Your task to perform on an android device: open wifi settings Image 0: 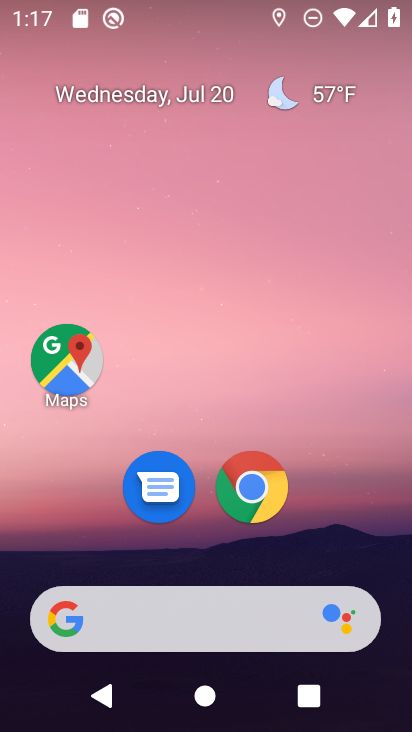
Step 0: drag from (377, 561) to (392, 134)
Your task to perform on an android device: open wifi settings Image 1: 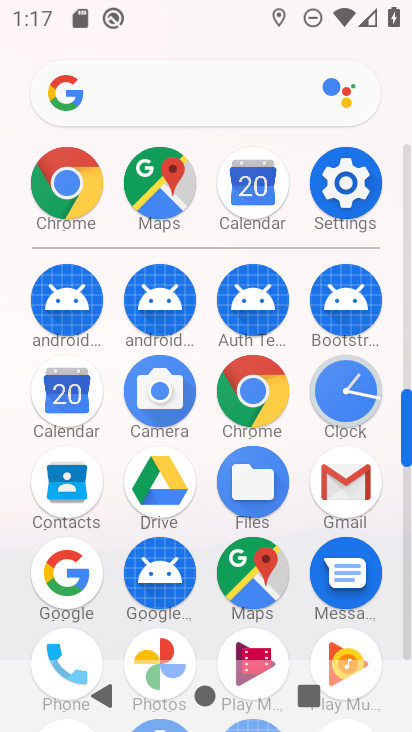
Step 1: click (354, 209)
Your task to perform on an android device: open wifi settings Image 2: 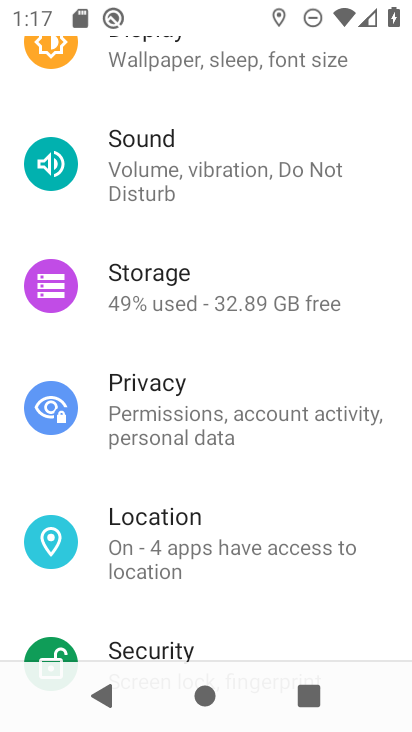
Step 2: drag from (366, 245) to (368, 323)
Your task to perform on an android device: open wifi settings Image 3: 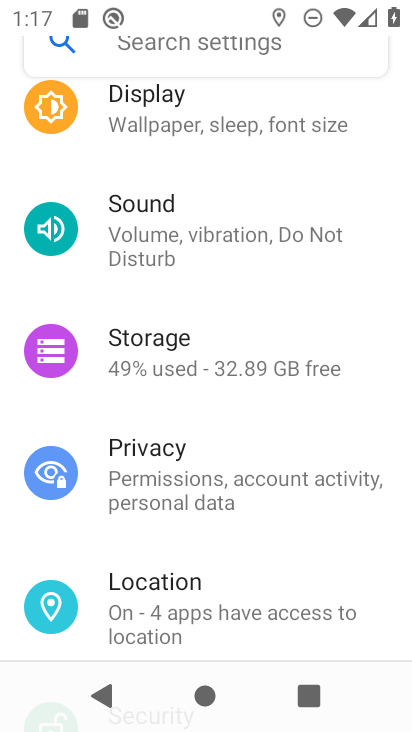
Step 3: drag from (379, 221) to (379, 290)
Your task to perform on an android device: open wifi settings Image 4: 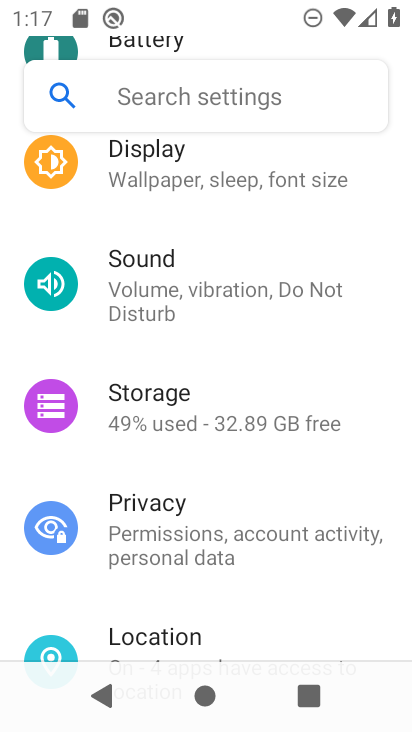
Step 4: drag from (380, 230) to (380, 314)
Your task to perform on an android device: open wifi settings Image 5: 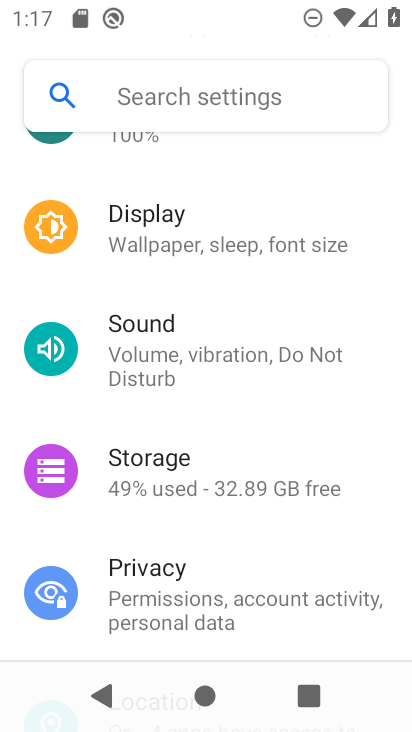
Step 5: drag from (386, 251) to (386, 304)
Your task to perform on an android device: open wifi settings Image 6: 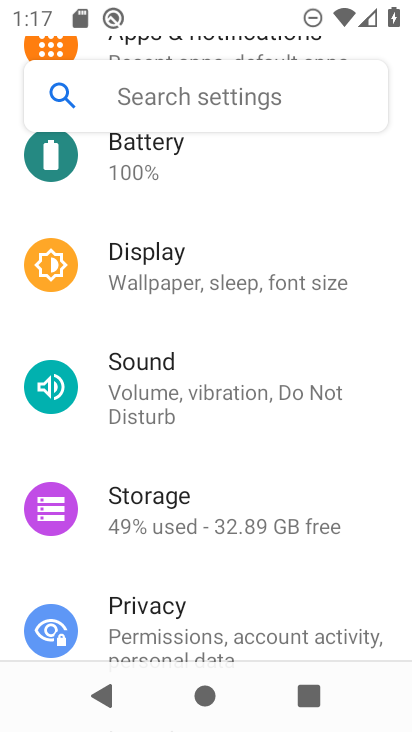
Step 6: drag from (386, 247) to (386, 316)
Your task to perform on an android device: open wifi settings Image 7: 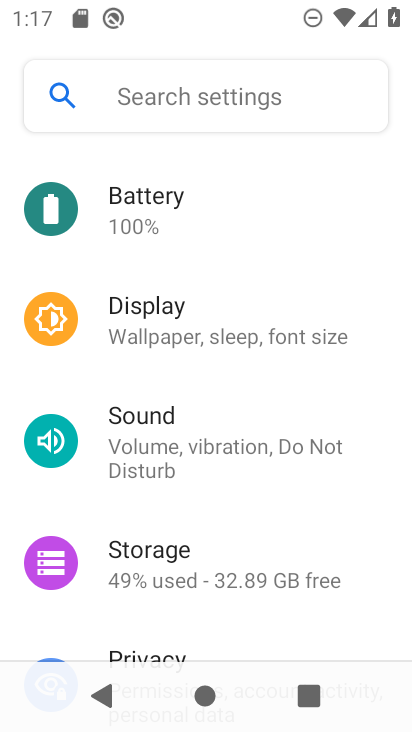
Step 7: drag from (370, 221) to (371, 307)
Your task to perform on an android device: open wifi settings Image 8: 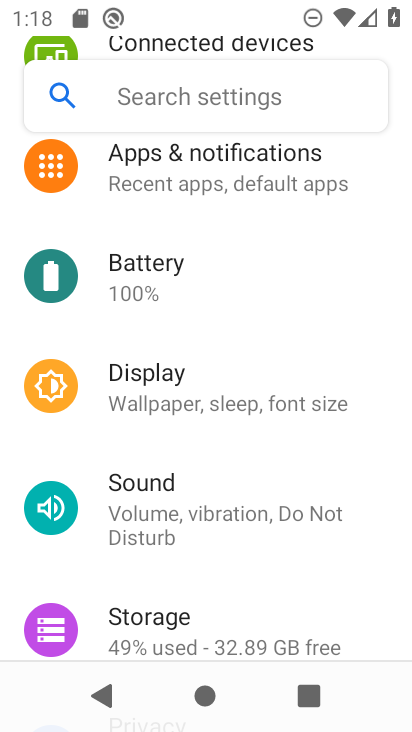
Step 8: drag from (373, 263) to (383, 369)
Your task to perform on an android device: open wifi settings Image 9: 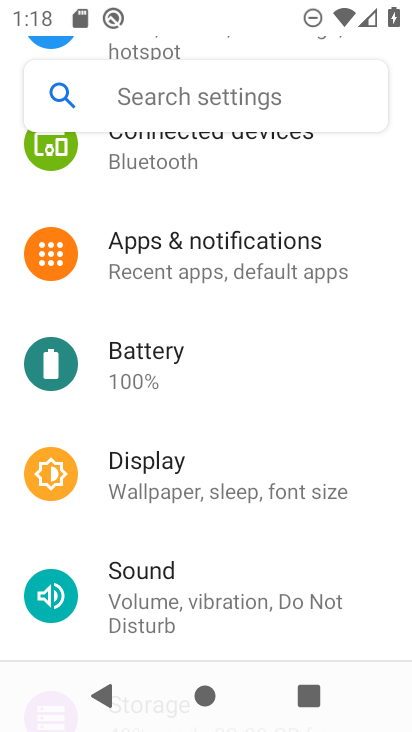
Step 9: drag from (382, 225) to (383, 315)
Your task to perform on an android device: open wifi settings Image 10: 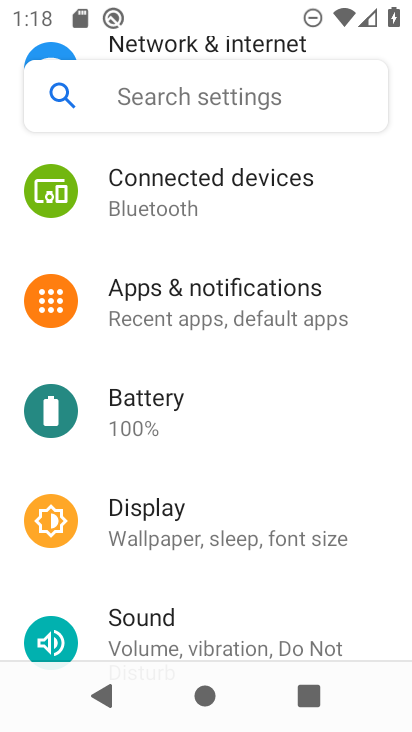
Step 10: drag from (382, 226) to (403, 336)
Your task to perform on an android device: open wifi settings Image 11: 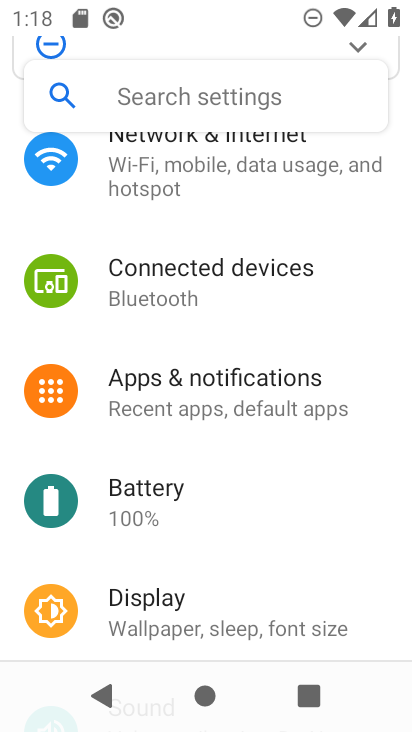
Step 11: drag from (376, 195) to (384, 299)
Your task to perform on an android device: open wifi settings Image 12: 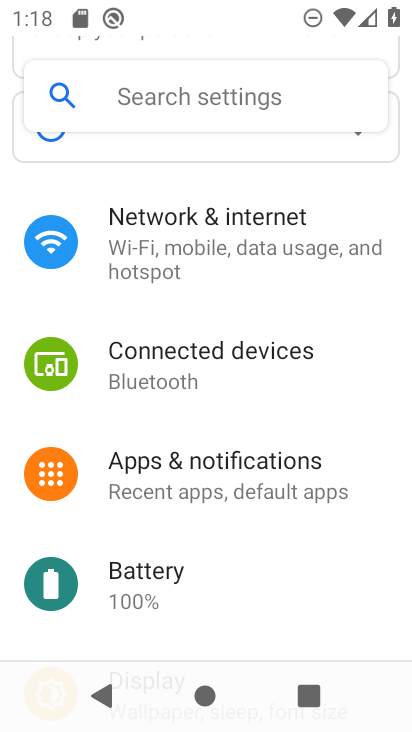
Step 12: click (367, 268)
Your task to perform on an android device: open wifi settings Image 13: 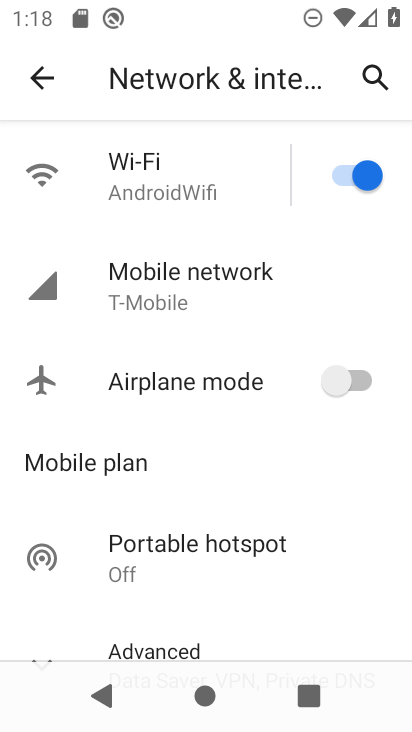
Step 13: click (113, 163)
Your task to perform on an android device: open wifi settings Image 14: 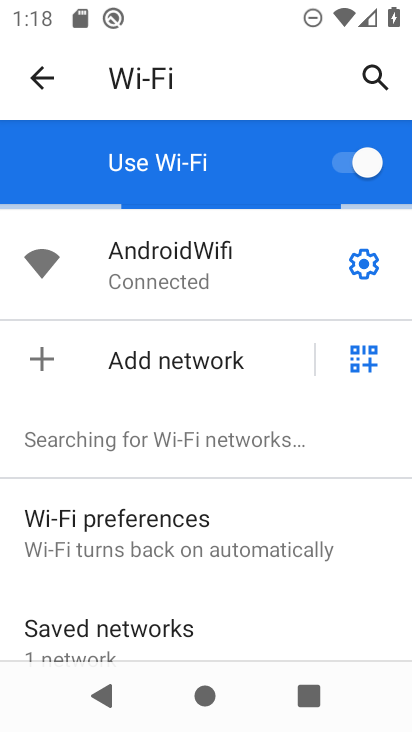
Step 14: task complete